Your task to perform on an android device: Open Android settings Image 0: 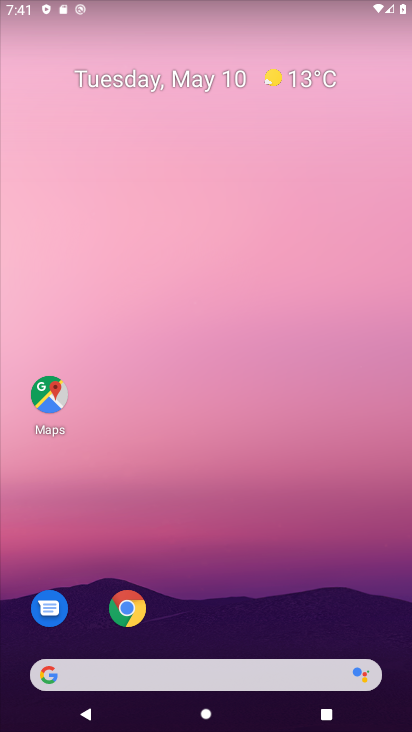
Step 0: press home button
Your task to perform on an android device: Open Android settings Image 1: 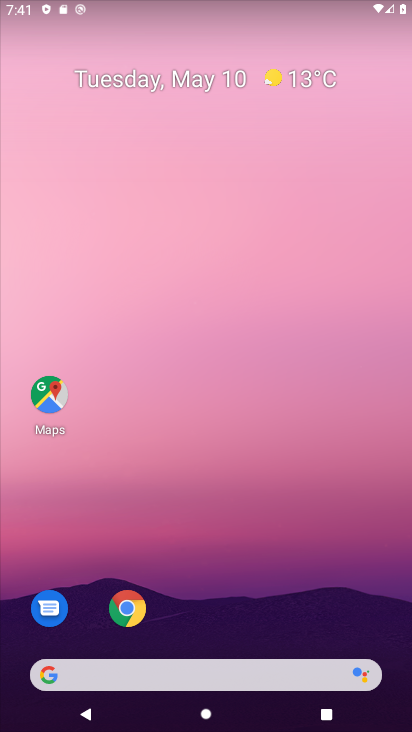
Step 1: drag from (137, 669) to (265, 114)
Your task to perform on an android device: Open Android settings Image 2: 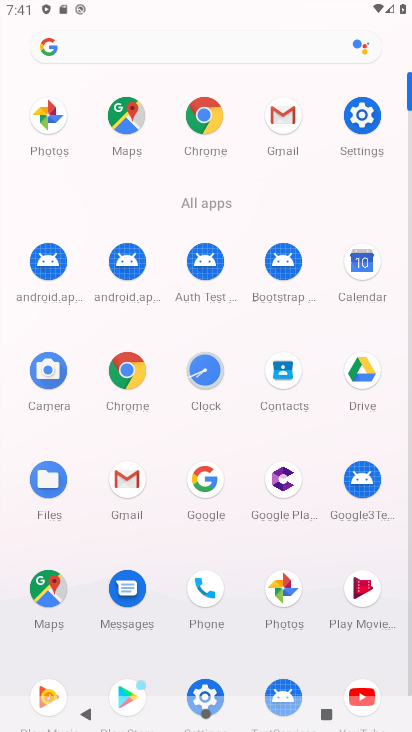
Step 2: click (363, 117)
Your task to perform on an android device: Open Android settings Image 3: 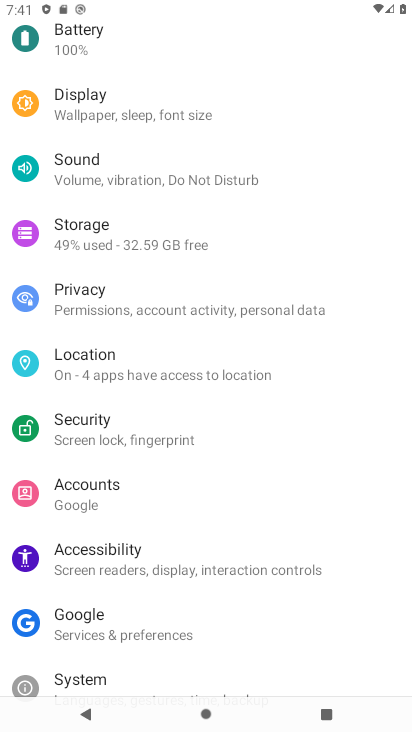
Step 3: task complete